Your task to perform on an android device: Open Google Chrome and open the bookmarks view Image 0: 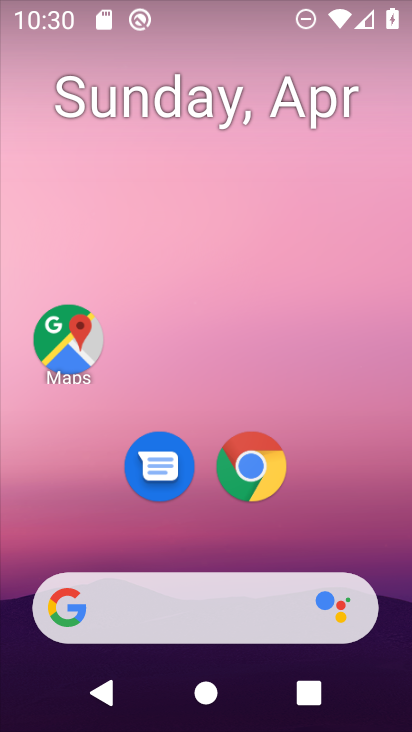
Step 0: drag from (361, 523) to (369, 121)
Your task to perform on an android device: Open Google Chrome and open the bookmarks view Image 1: 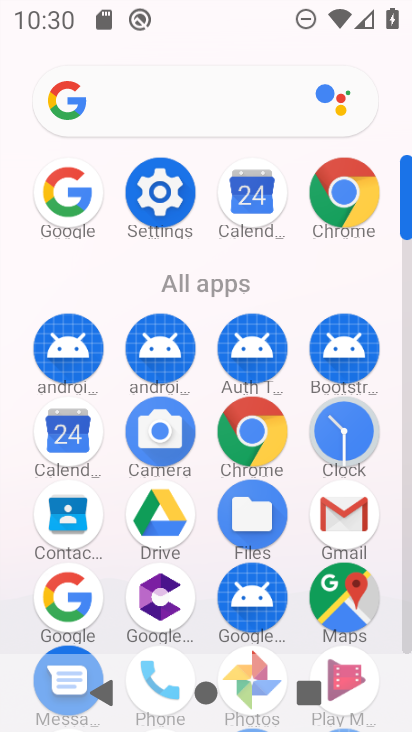
Step 1: click (348, 184)
Your task to perform on an android device: Open Google Chrome and open the bookmarks view Image 2: 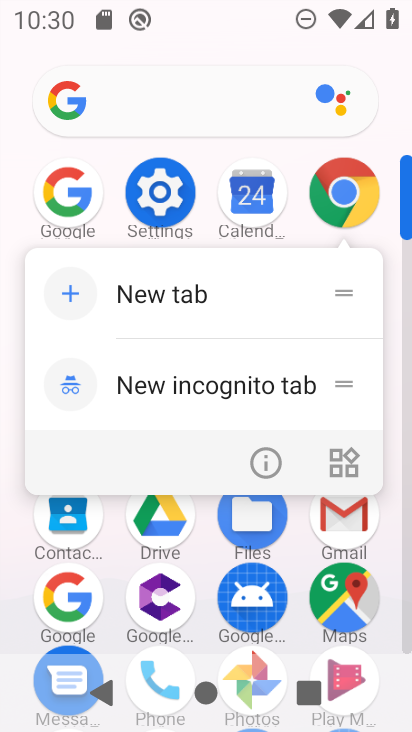
Step 2: click (347, 196)
Your task to perform on an android device: Open Google Chrome and open the bookmarks view Image 3: 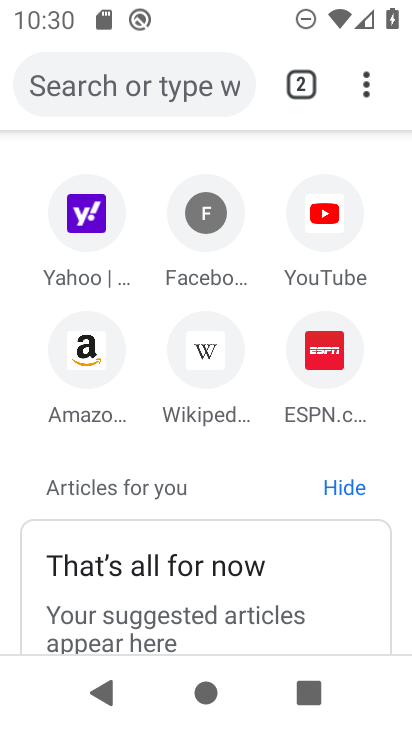
Step 3: click (368, 86)
Your task to perform on an android device: Open Google Chrome and open the bookmarks view Image 4: 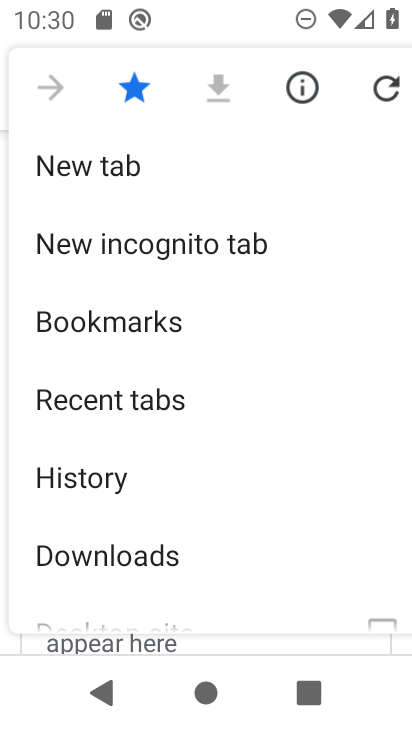
Step 4: drag from (328, 530) to (325, 343)
Your task to perform on an android device: Open Google Chrome and open the bookmarks view Image 5: 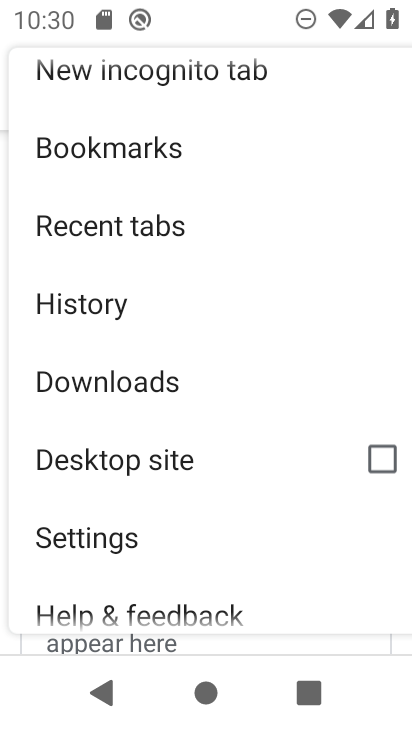
Step 5: drag from (297, 515) to (291, 368)
Your task to perform on an android device: Open Google Chrome and open the bookmarks view Image 6: 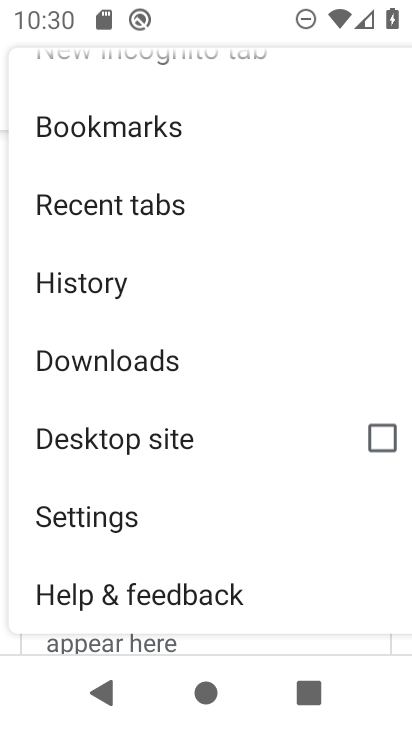
Step 6: drag from (300, 532) to (305, 395)
Your task to perform on an android device: Open Google Chrome and open the bookmarks view Image 7: 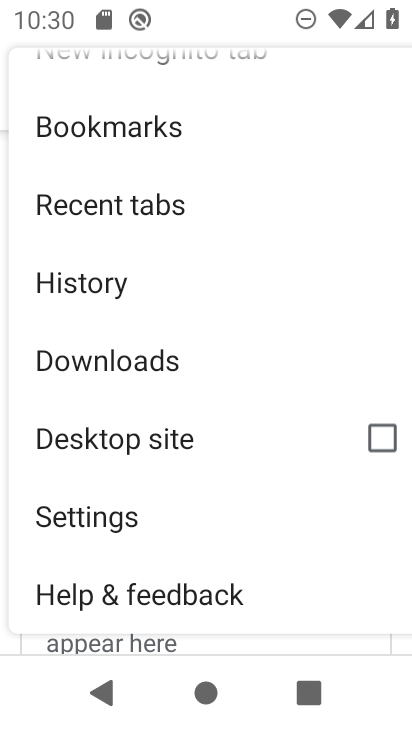
Step 7: drag from (254, 222) to (276, 434)
Your task to perform on an android device: Open Google Chrome and open the bookmarks view Image 8: 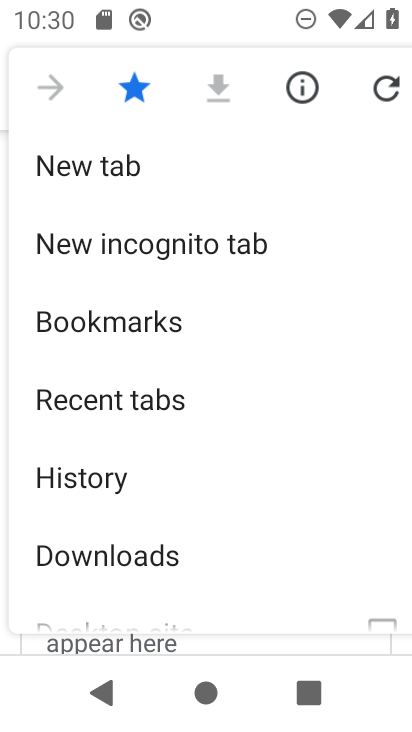
Step 8: click (164, 320)
Your task to perform on an android device: Open Google Chrome and open the bookmarks view Image 9: 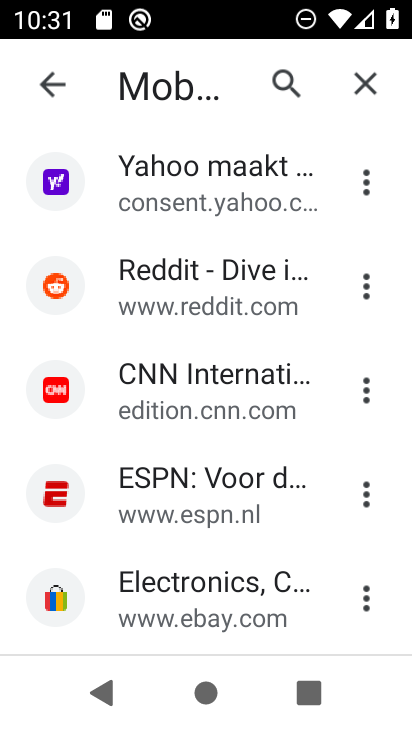
Step 9: task complete